Your task to perform on an android device: Show the shopping cart on costco.com. Image 0: 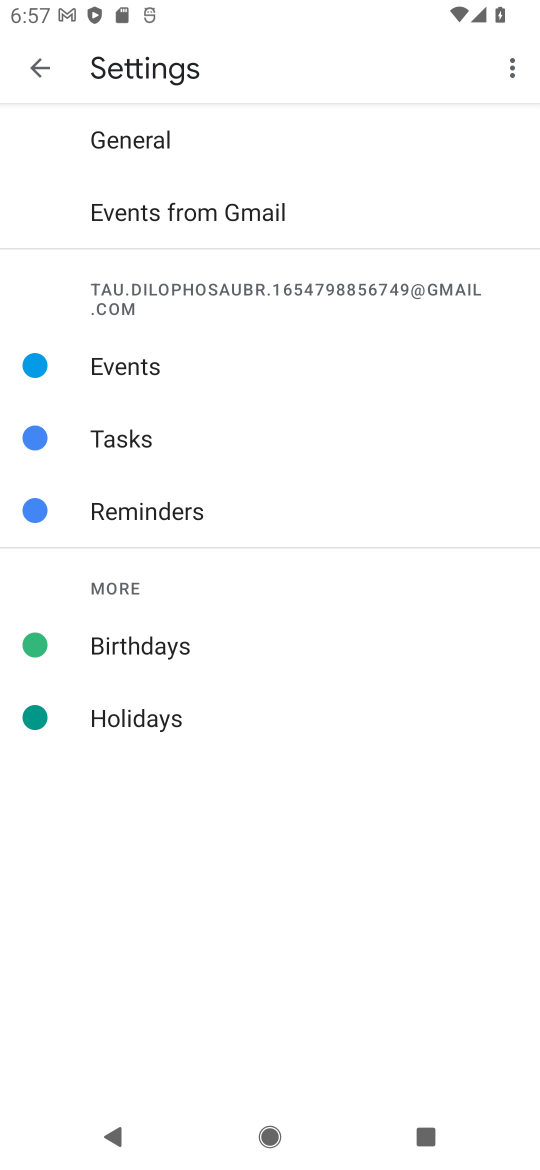
Step 0: press home button
Your task to perform on an android device: Show the shopping cart on costco.com. Image 1: 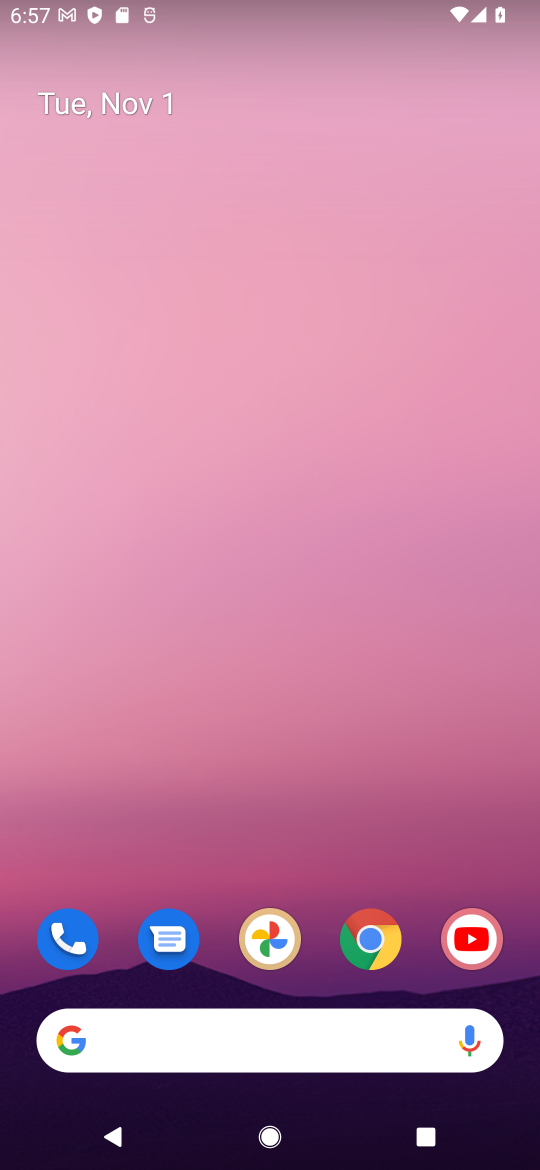
Step 1: drag from (295, 482) to (191, 70)
Your task to perform on an android device: Show the shopping cart on costco.com. Image 2: 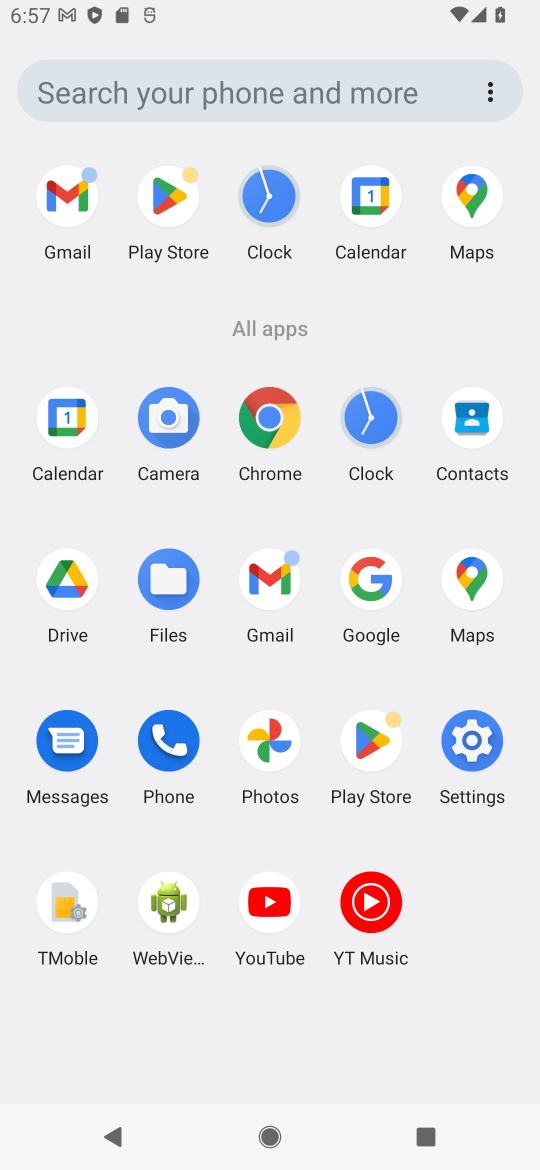
Step 2: click (266, 418)
Your task to perform on an android device: Show the shopping cart on costco.com. Image 3: 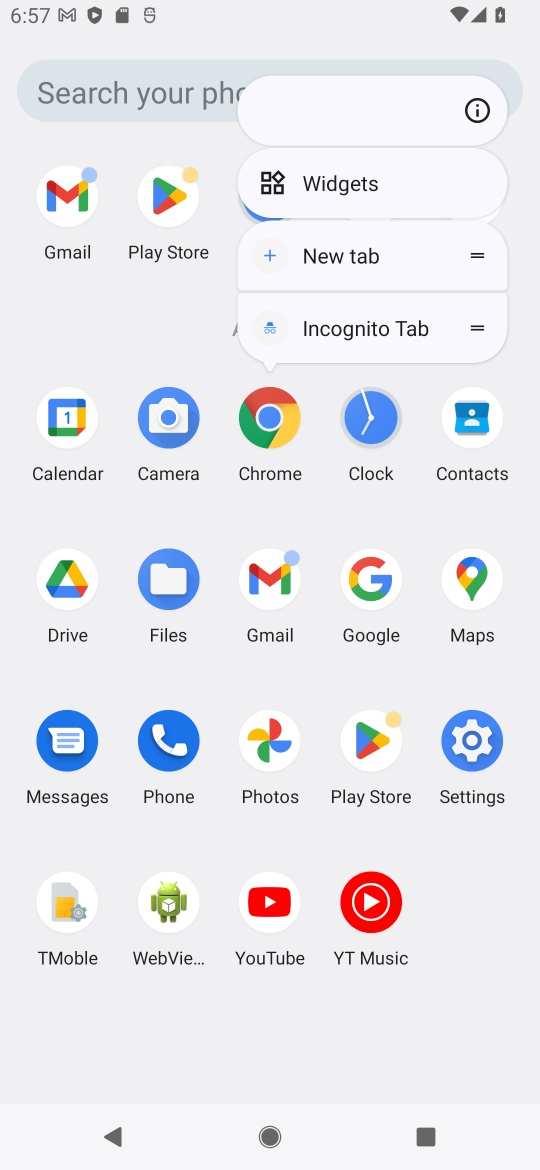
Step 3: click (265, 420)
Your task to perform on an android device: Show the shopping cart on costco.com. Image 4: 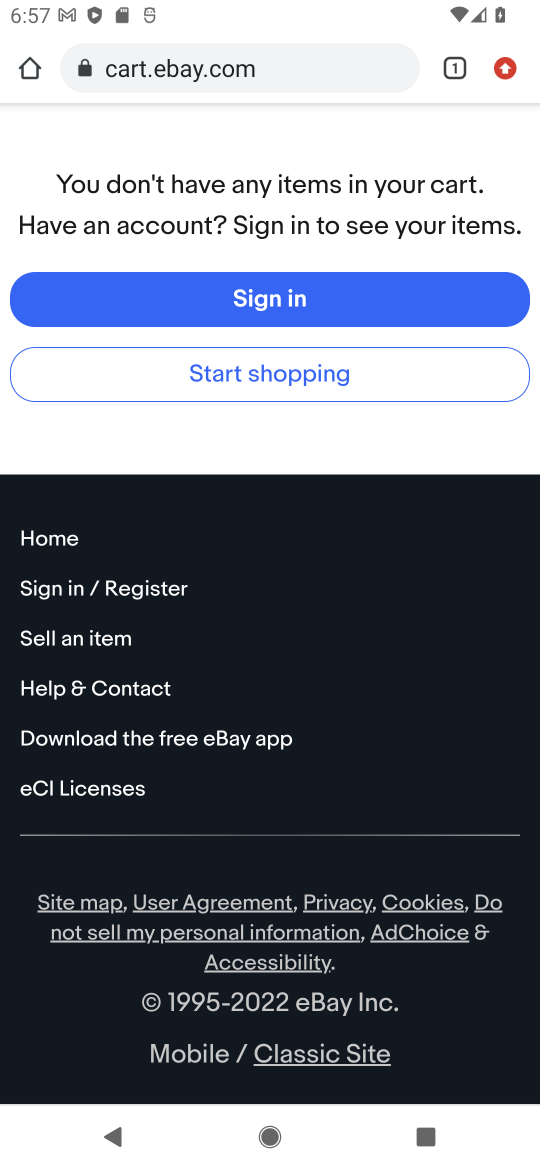
Step 4: click (160, 71)
Your task to perform on an android device: Show the shopping cart on costco.com. Image 5: 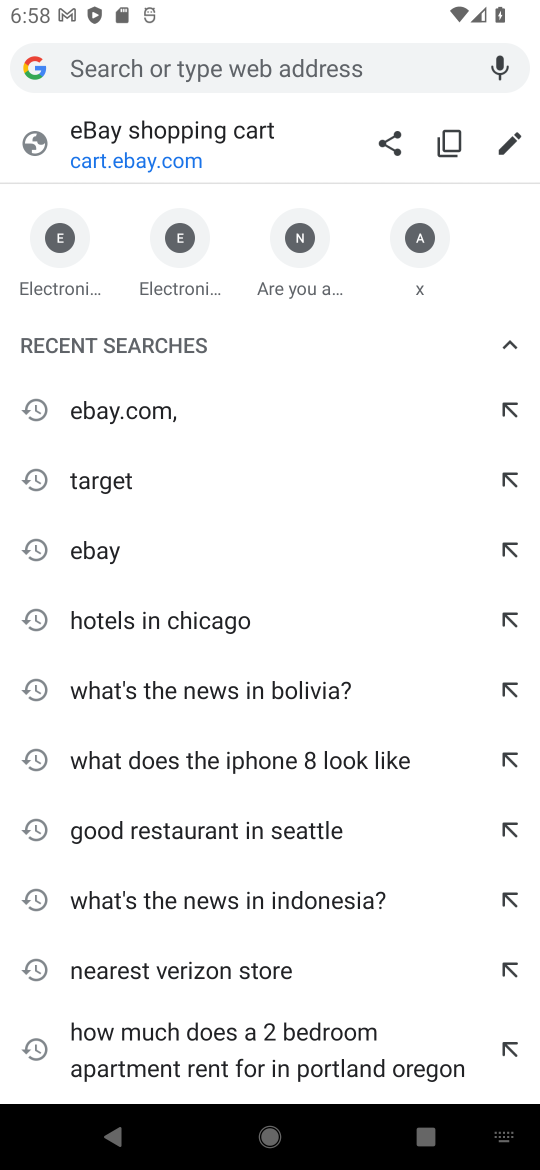
Step 5: type " costco.com."
Your task to perform on an android device: Show the shopping cart on costco.com. Image 6: 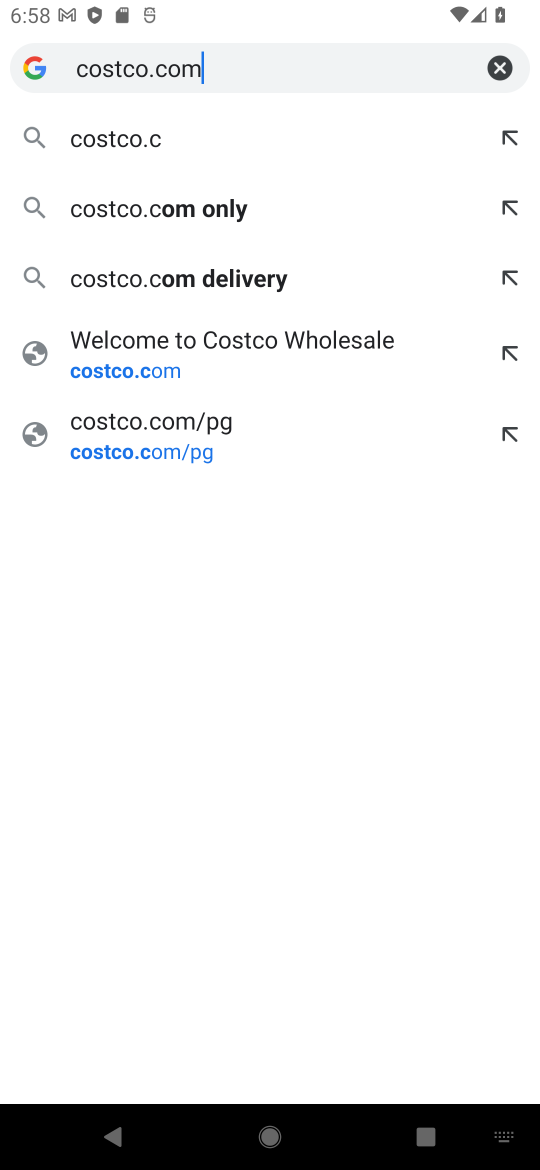
Step 6: press enter
Your task to perform on an android device: Show the shopping cart on costco.com. Image 7: 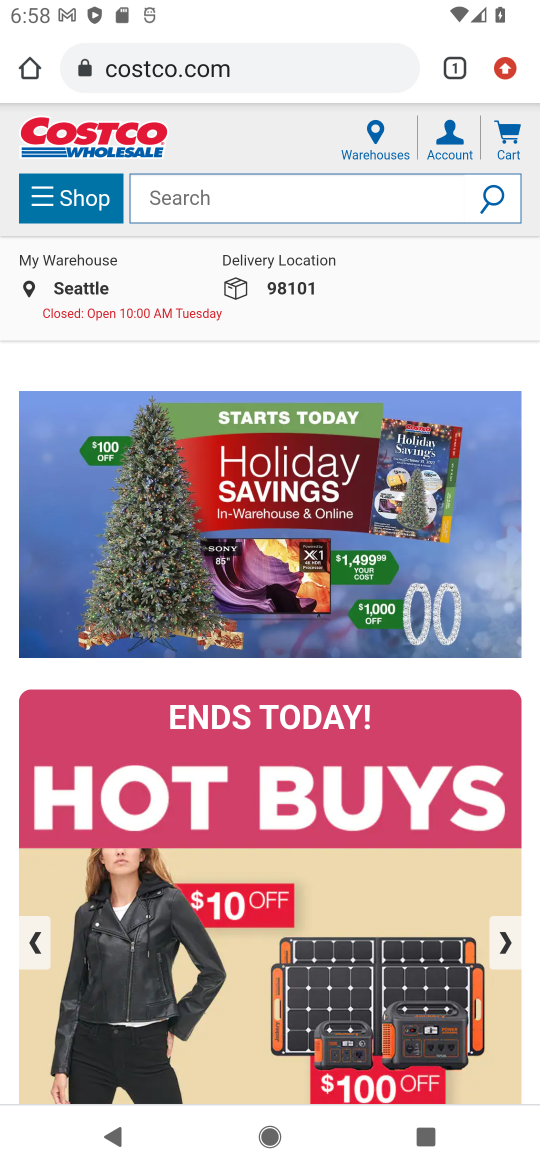
Step 7: click (518, 125)
Your task to perform on an android device: Show the shopping cart on costco.com. Image 8: 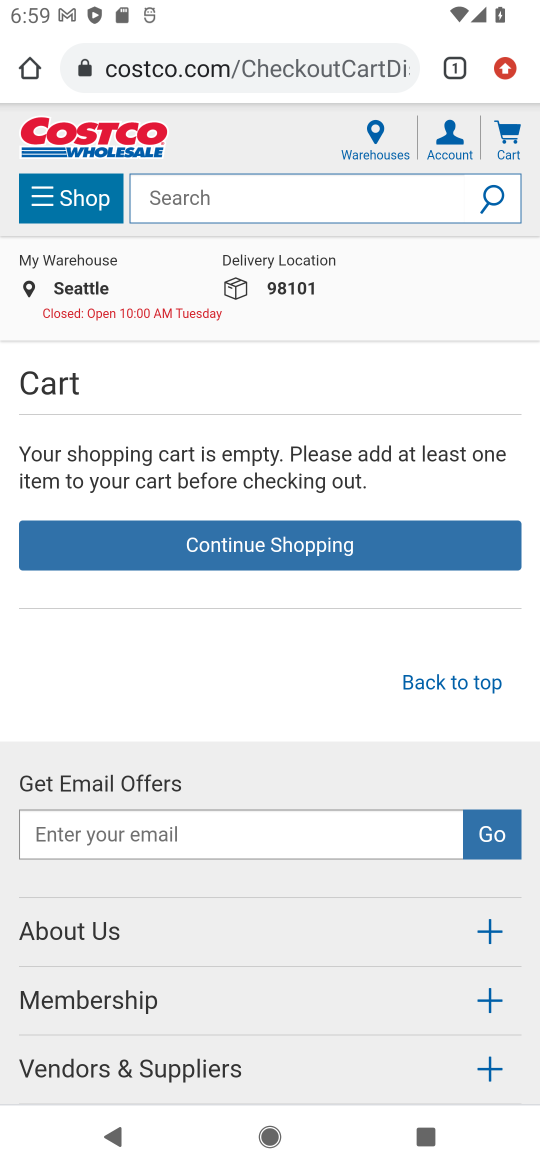
Step 8: task complete